Your task to perform on an android device: all mails in gmail Image 0: 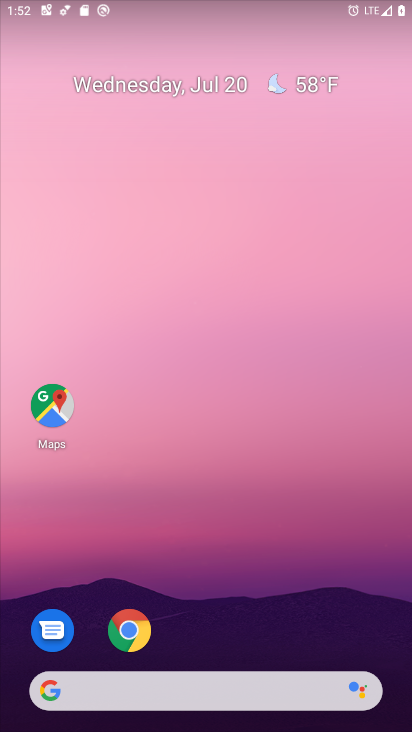
Step 0: drag from (205, 661) to (267, 168)
Your task to perform on an android device: all mails in gmail Image 1: 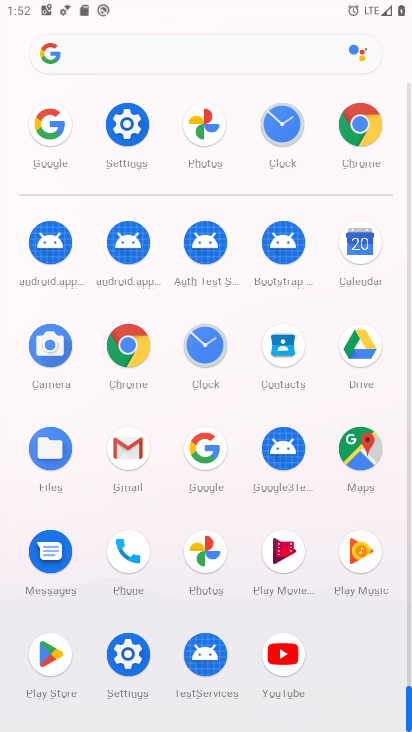
Step 1: click (132, 457)
Your task to perform on an android device: all mails in gmail Image 2: 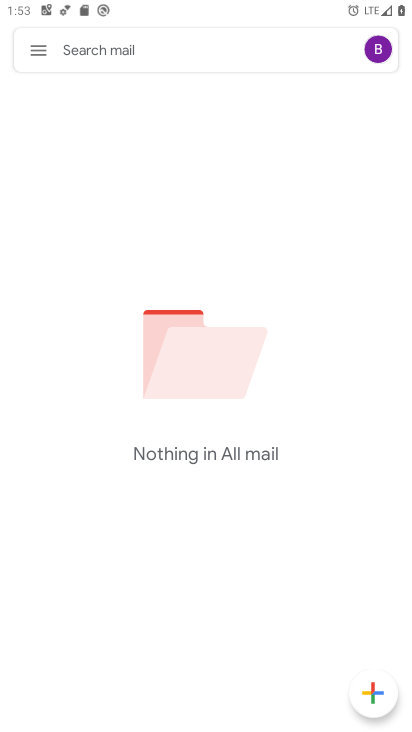
Step 2: task complete